Your task to perform on an android device: Go to settings Image 0: 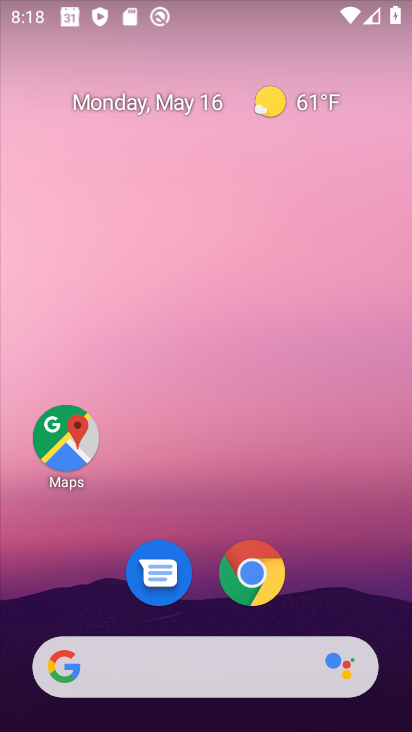
Step 0: drag from (191, 628) to (192, 128)
Your task to perform on an android device: Go to settings Image 1: 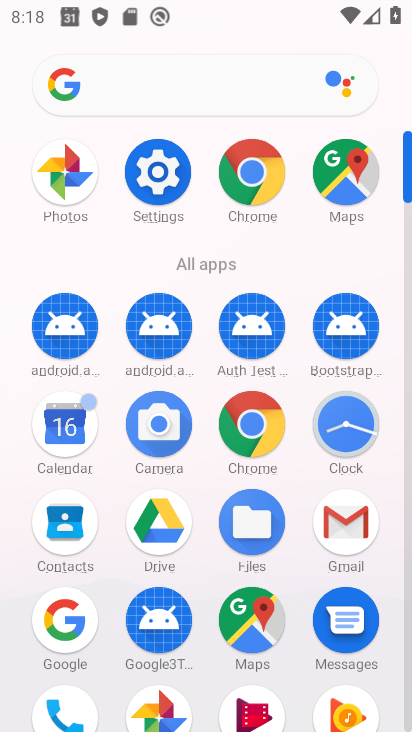
Step 1: click (157, 165)
Your task to perform on an android device: Go to settings Image 2: 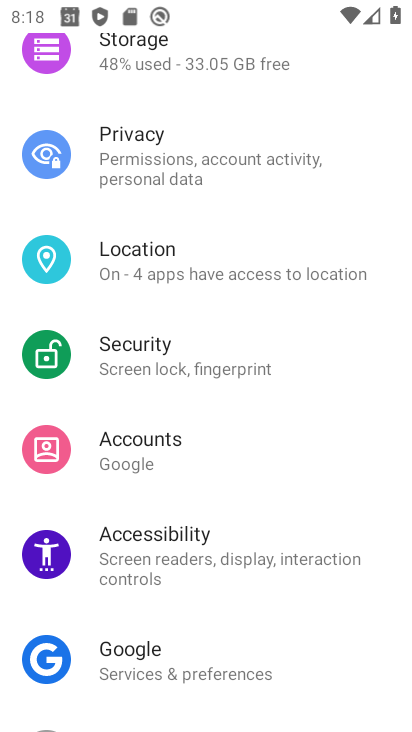
Step 2: task complete